Your task to perform on an android device: change keyboard looks Image 0: 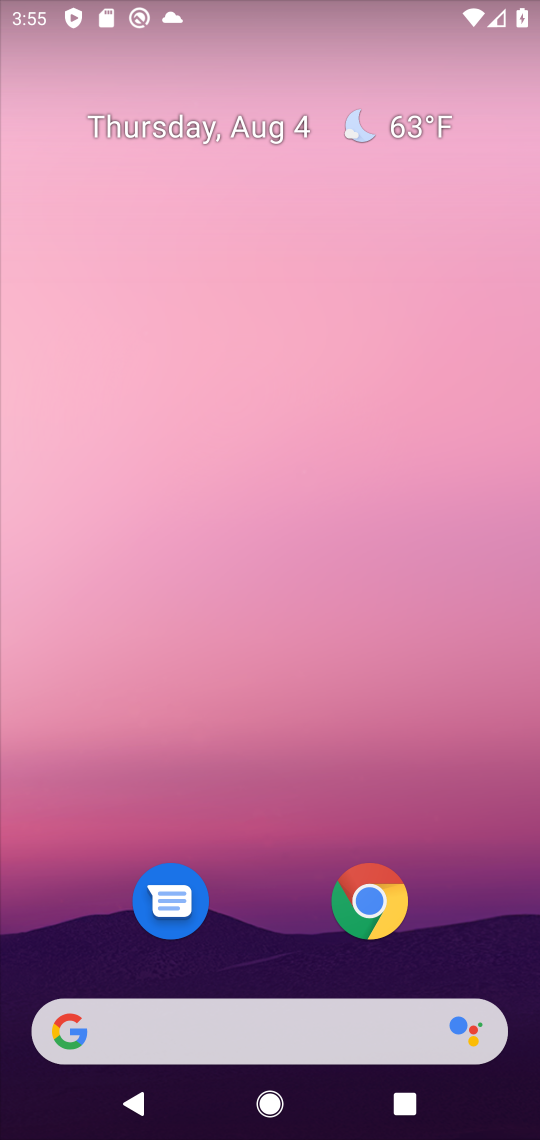
Step 0: drag from (295, 732) to (216, 29)
Your task to perform on an android device: change keyboard looks Image 1: 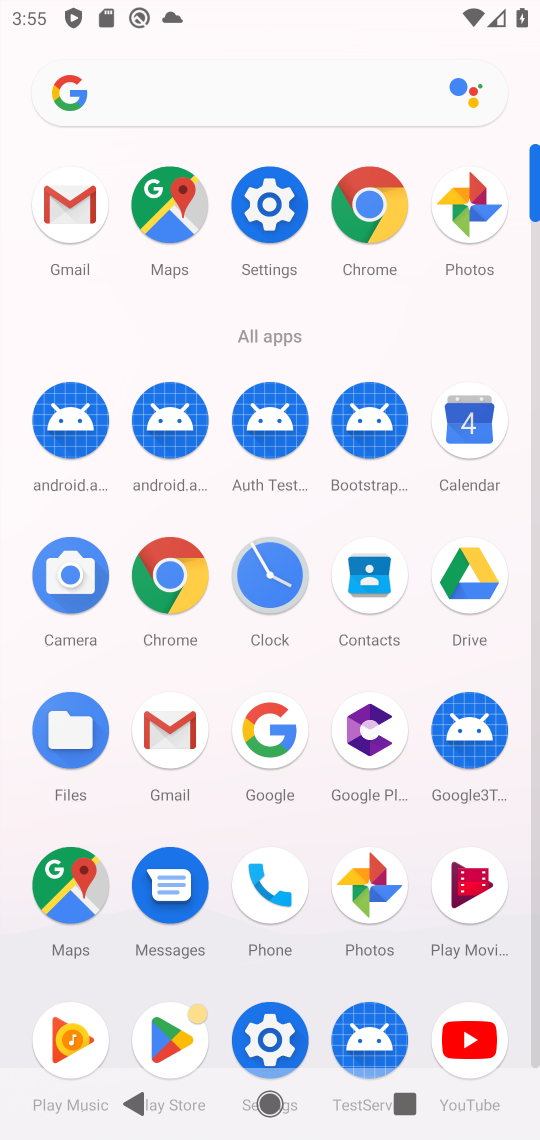
Step 1: click (282, 1033)
Your task to perform on an android device: change keyboard looks Image 2: 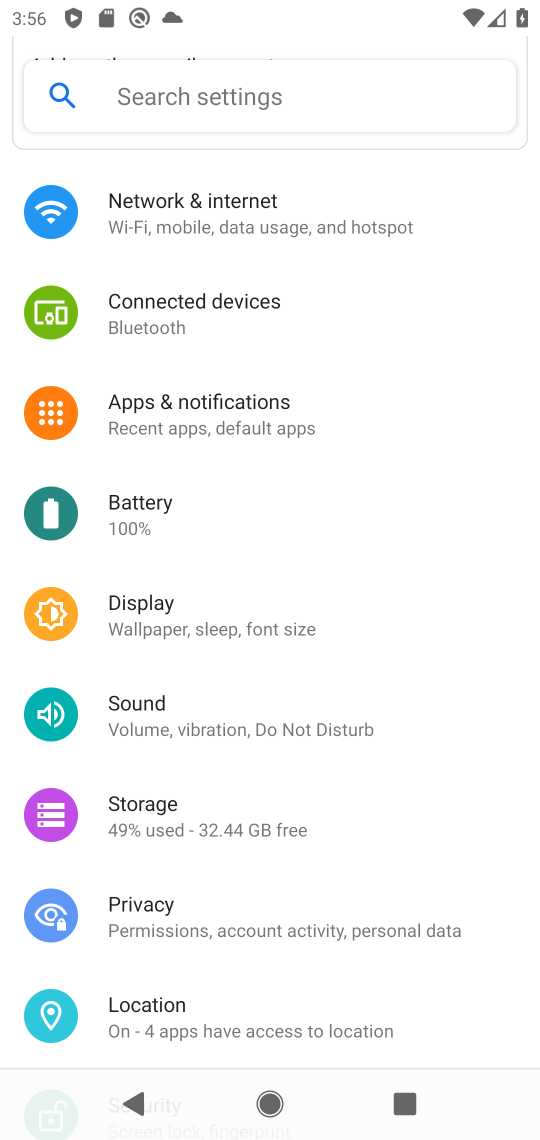
Step 2: drag from (279, 872) to (324, 162)
Your task to perform on an android device: change keyboard looks Image 3: 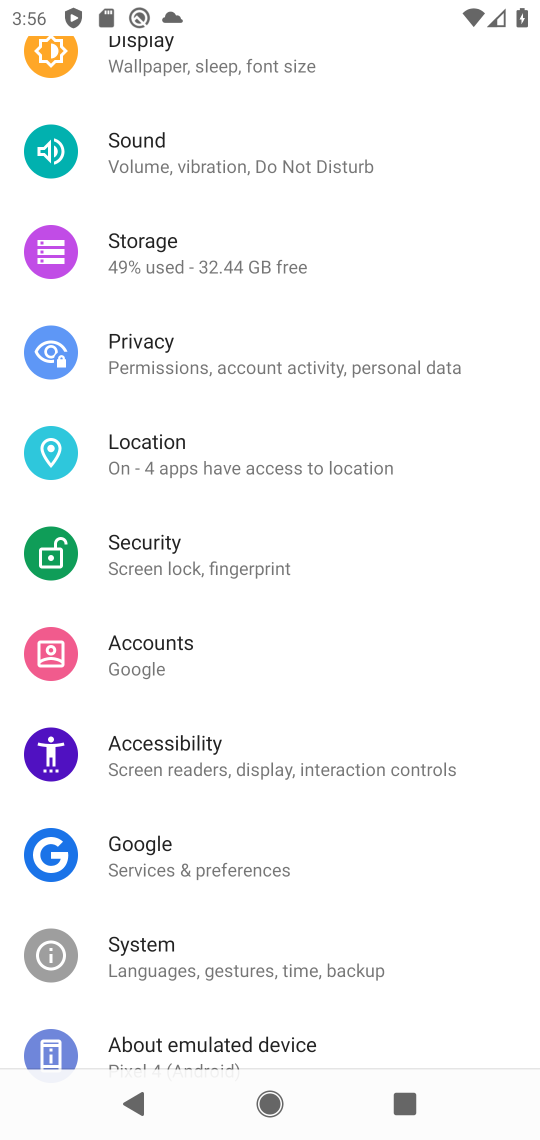
Step 3: drag from (308, 953) to (404, 340)
Your task to perform on an android device: change keyboard looks Image 4: 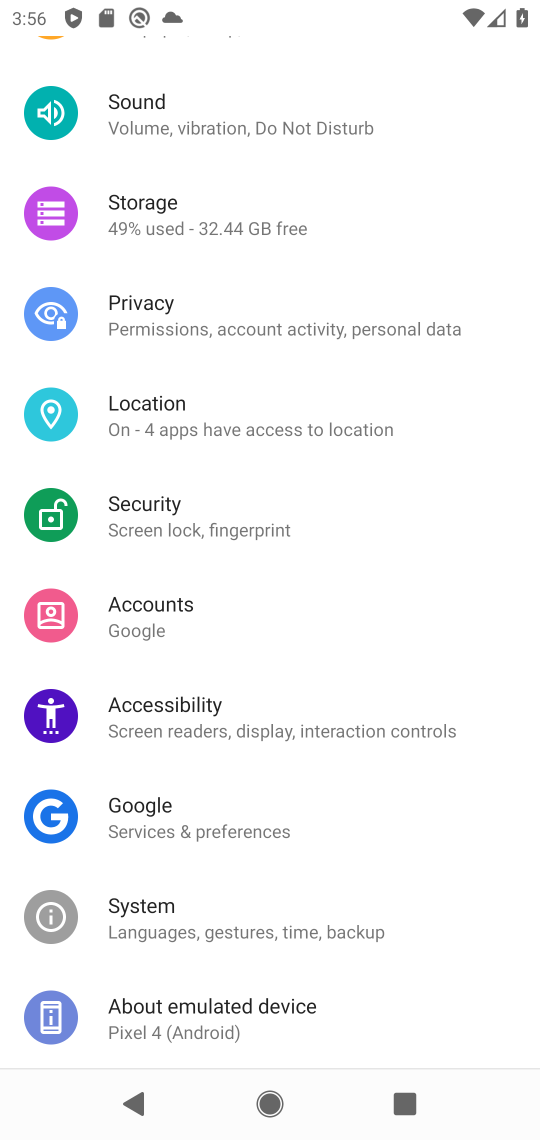
Step 4: click (147, 928)
Your task to perform on an android device: change keyboard looks Image 5: 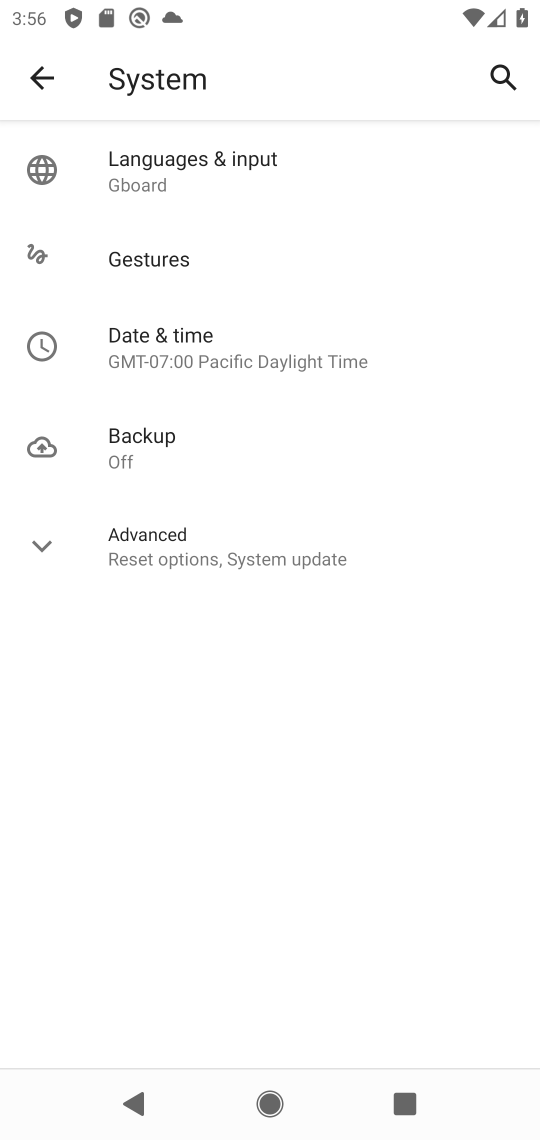
Step 5: click (191, 164)
Your task to perform on an android device: change keyboard looks Image 6: 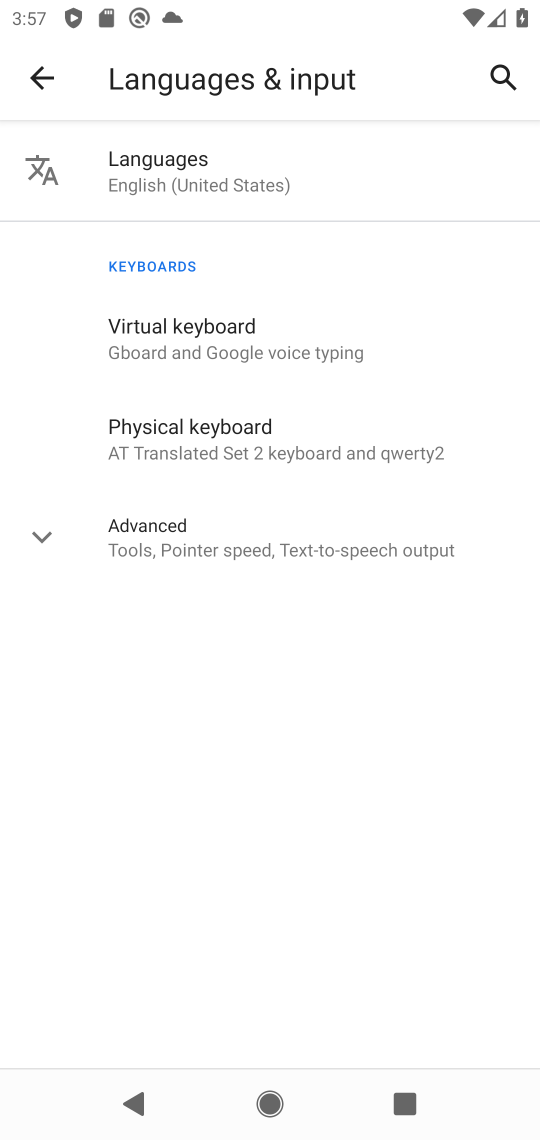
Step 6: click (211, 350)
Your task to perform on an android device: change keyboard looks Image 7: 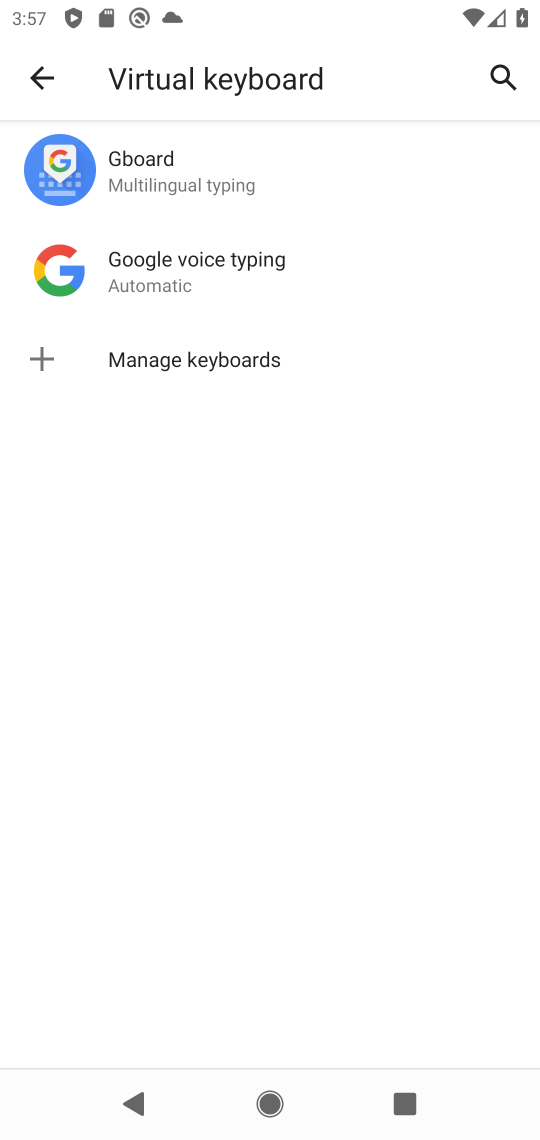
Step 7: click (190, 155)
Your task to perform on an android device: change keyboard looks Image 8: 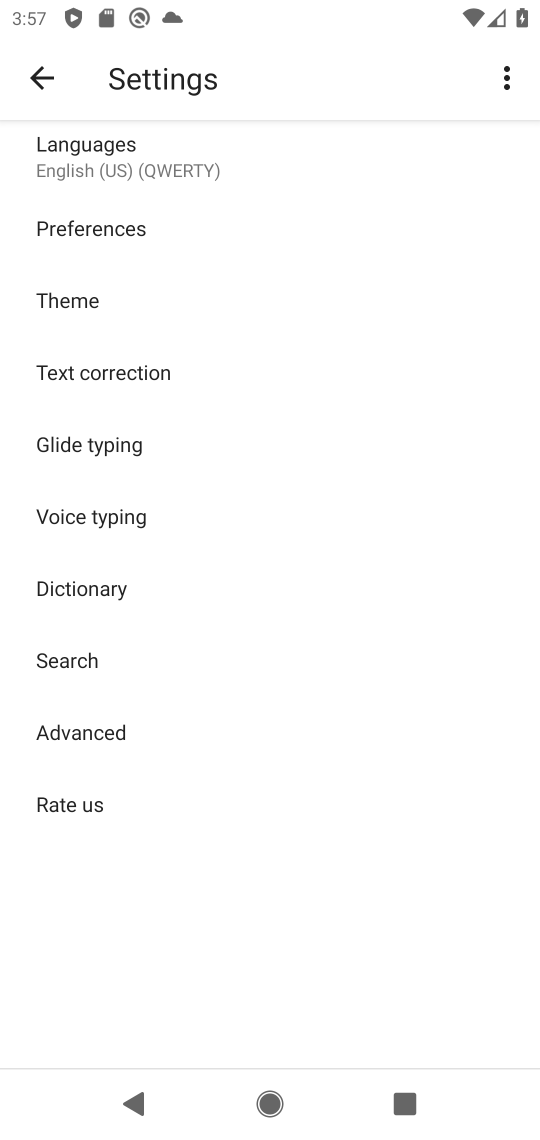
Step 8: click (54, 304)
Your task to perform on an android device: change keyboard looks Image 9: 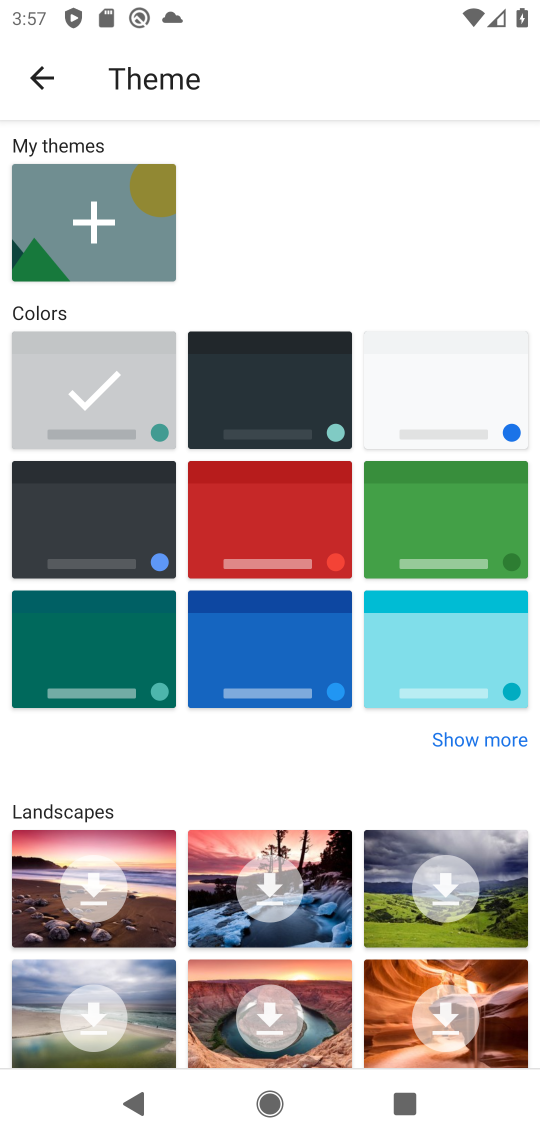
Step 9: click (232, 387)
Your task to perform on an android device: change keyboard looks Image 10: 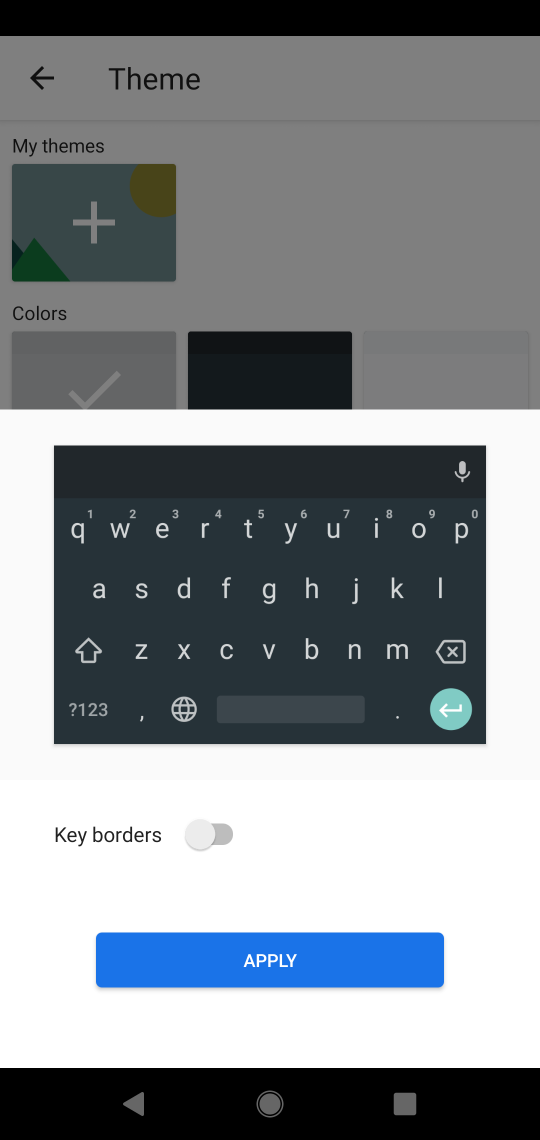
Step 10: click (214, 827)
Your task to perform on an android device: change keyboard looks Image 11: 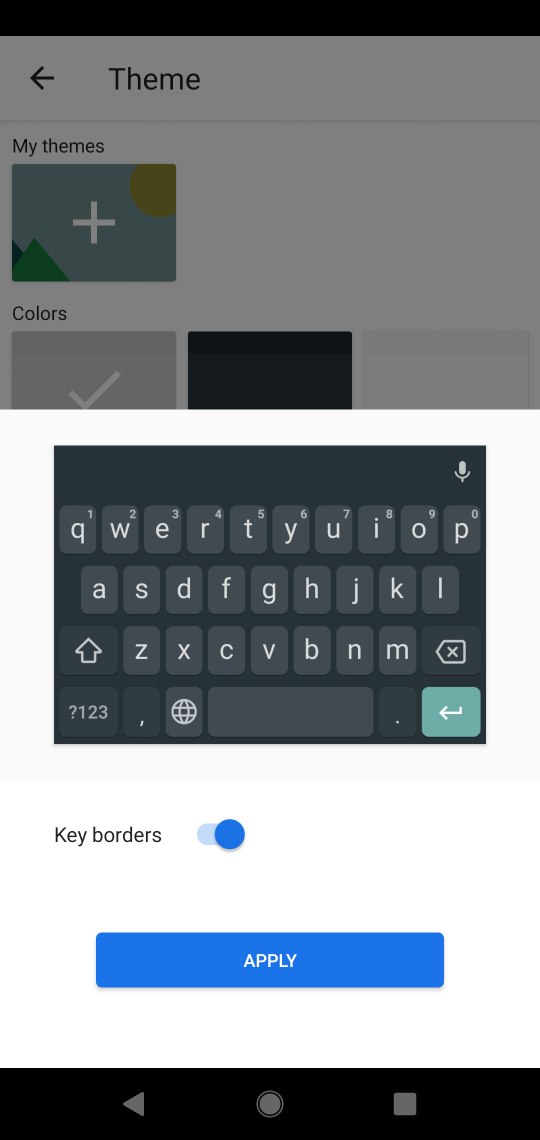
Step 11: click (223, 964)
Your task to perform on an android device: change keyboard looks Image 12: 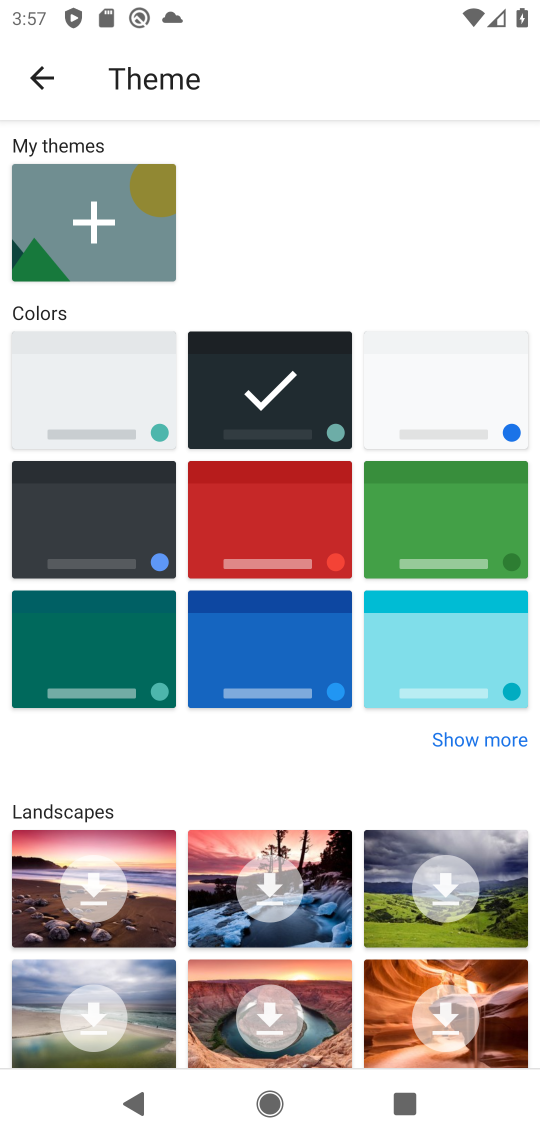
Step 12: task complete